Your task to perform on an android device: Open battery settings Image 0: 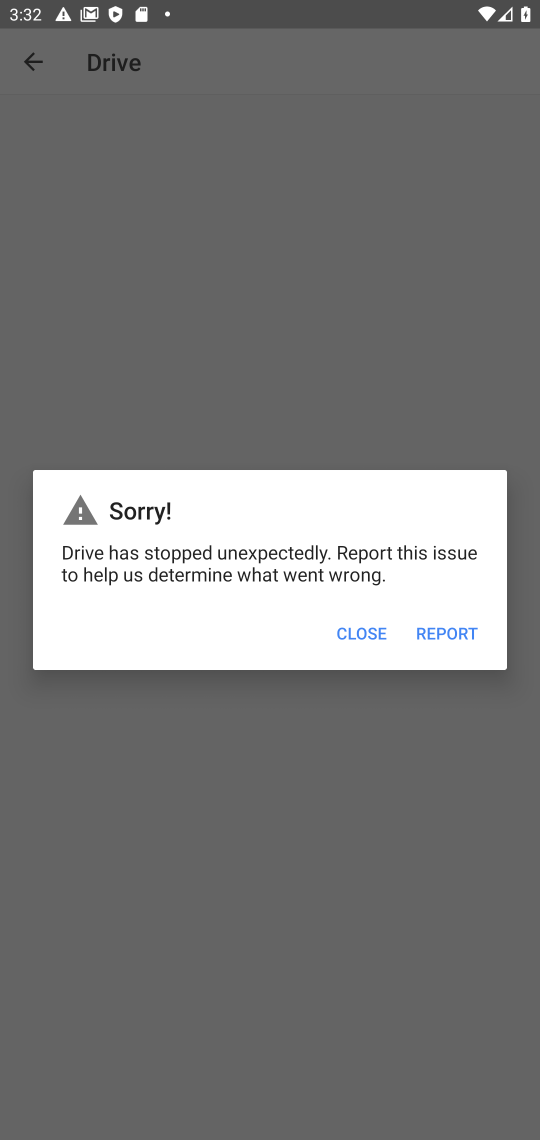
Step 0: press home button
Your task to perform on an android device: Open battery settings Image 1: 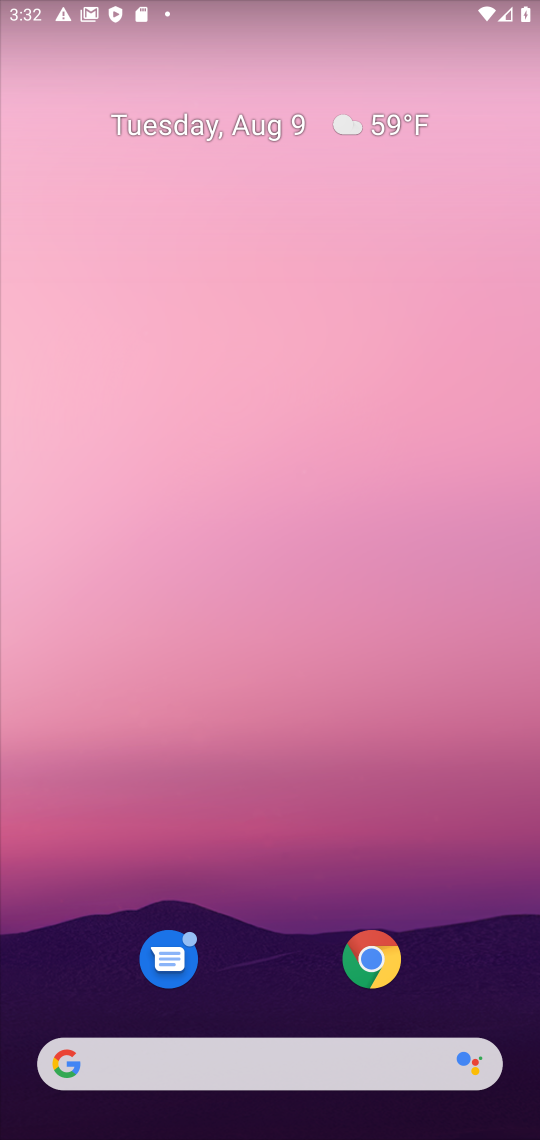
Step 1: drag from (274, 972) to (260, 43)
Your task to perform on an android device: Open battery settings Image 2: 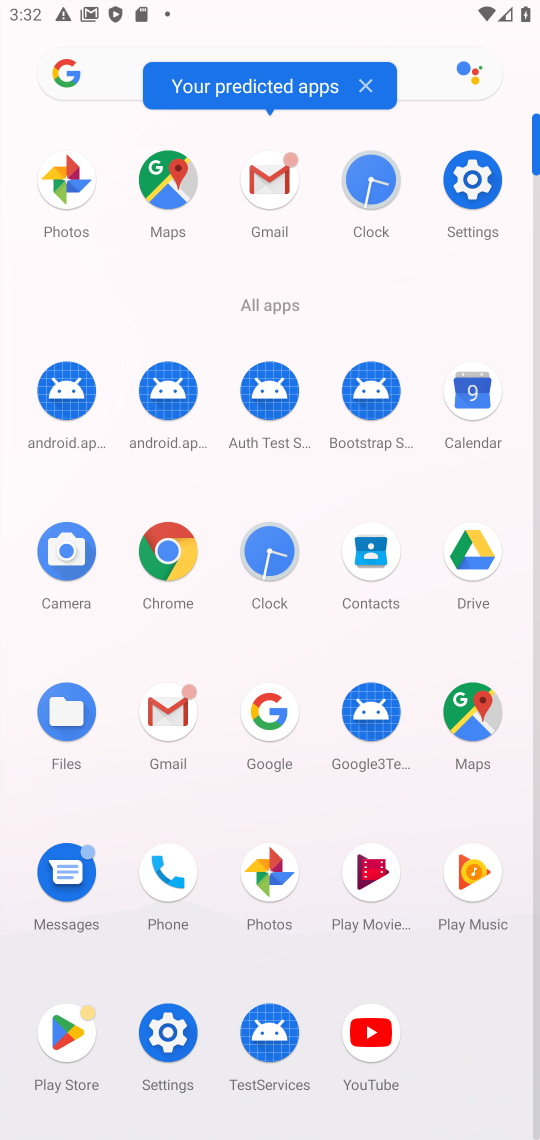
Step 2: click (172, 1026)
Your task to perform on an android device: Open battery settings Image 3: 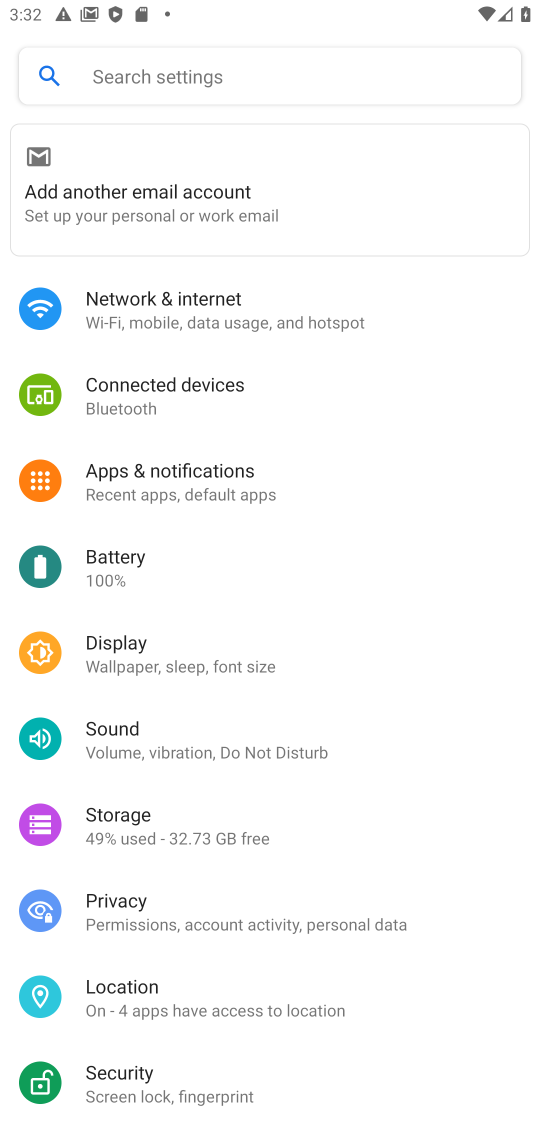
Step 3: click (157, 558)
Your task to perform on an android device: Open battery settings Image 4: 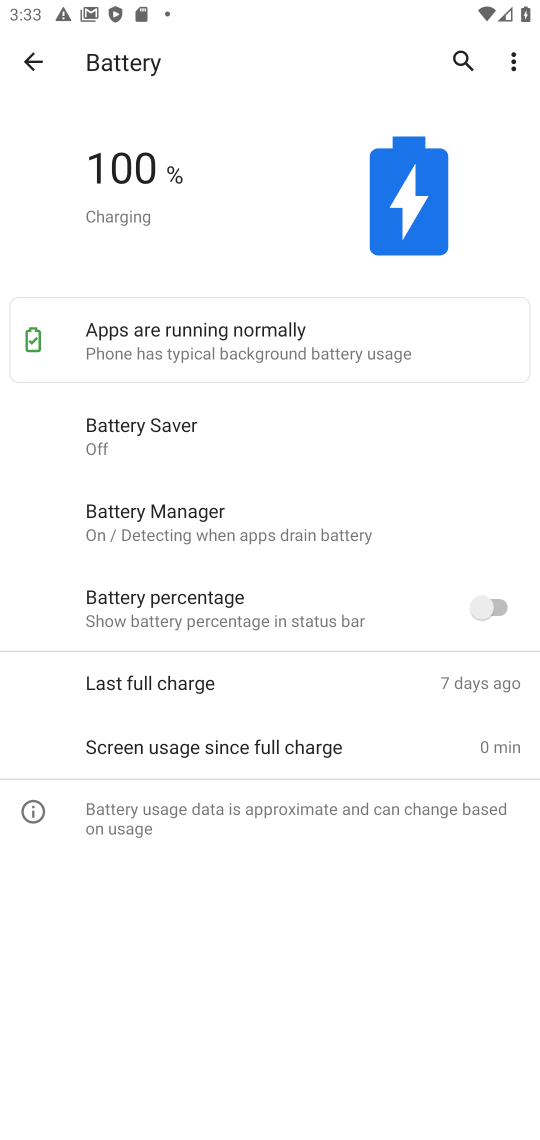
Step 4: task complete